Your task to perform on an android device: toggle wifi Image 0: 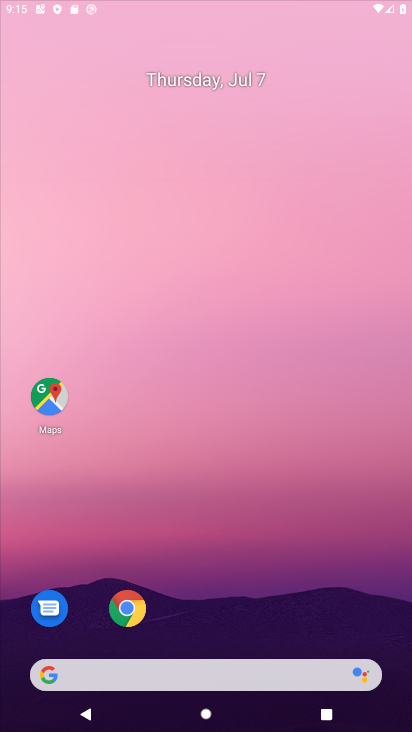
Step 0: drag from (214, 592) to (237, 92)
Your task to perform on an android device: toggle wifi Image 1: 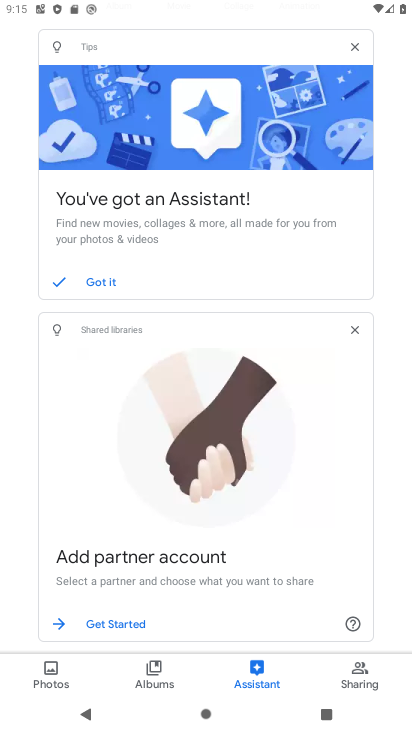
Step 1: press home button
Your task to perform on an android device: toggle wifi Image 2: 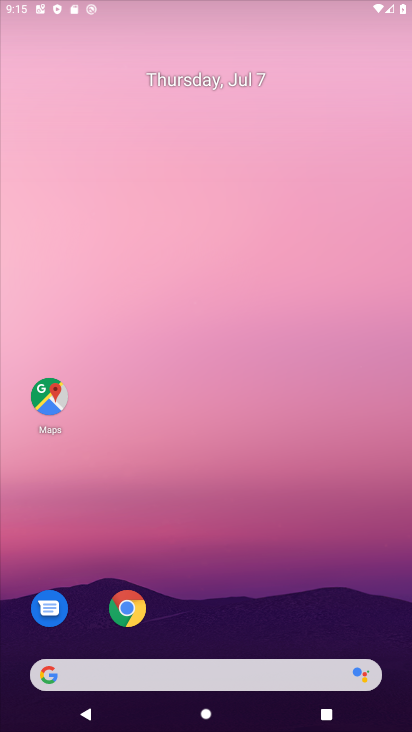
Step 2: drag from (214, 618) to (230, 55)
Your task to perform on an android device: toggle wifi Image 3: 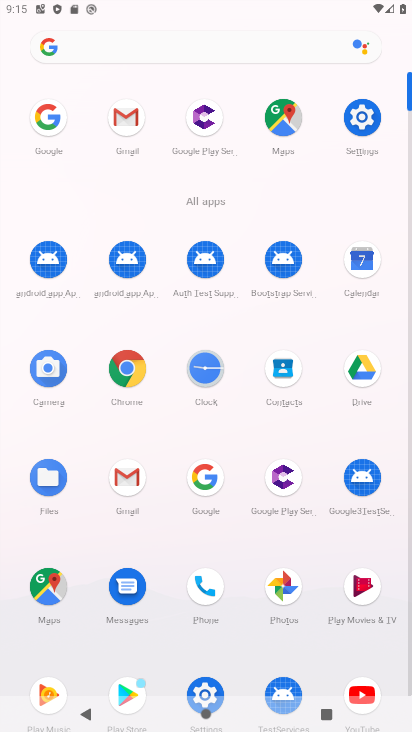
Step 3: click (363, 118)
Your task to perform on an android device: toggle wifi Image 4: 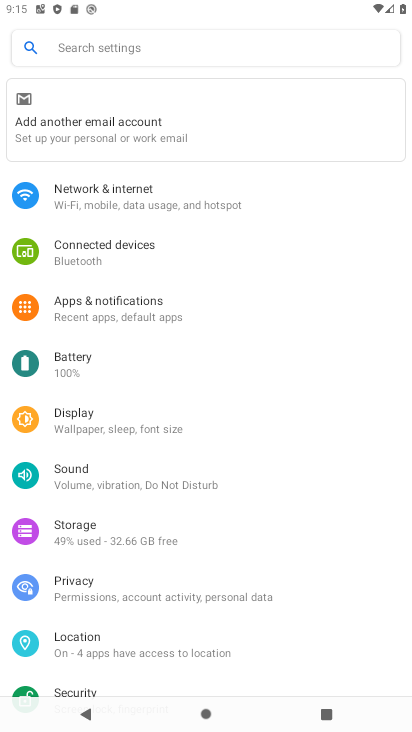
Step 4: click (164, 193)
Your task to perform on an android device: toggle wifi Image 5: 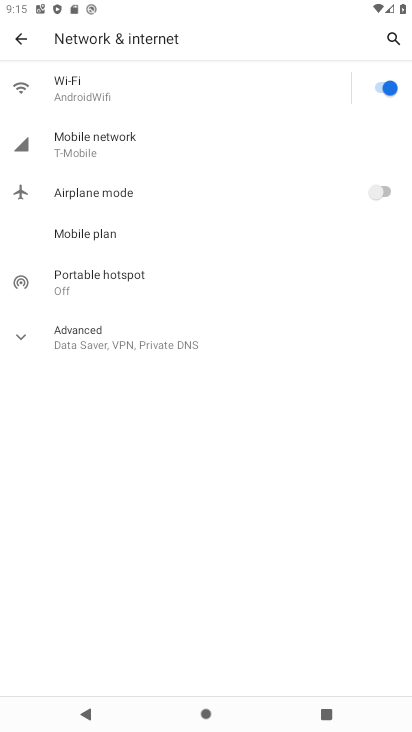
Step 5: click (384, 86)
Your task to perform on an android device: toggle wifi Image 6: 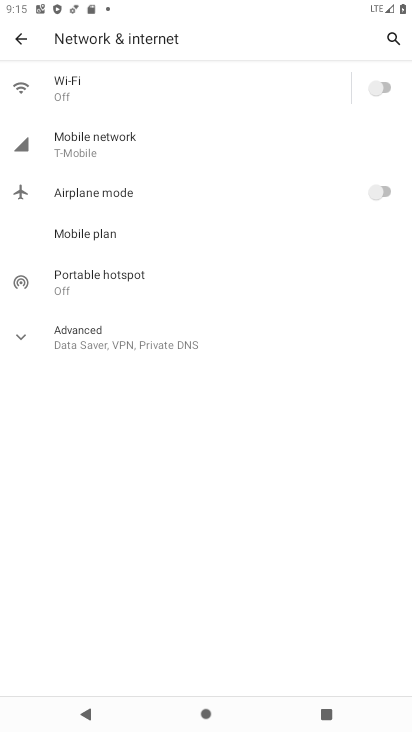
Step 6: task complete